Your task to perform on an android device: open app "PlayWell" (install if not already installed) Image 0: 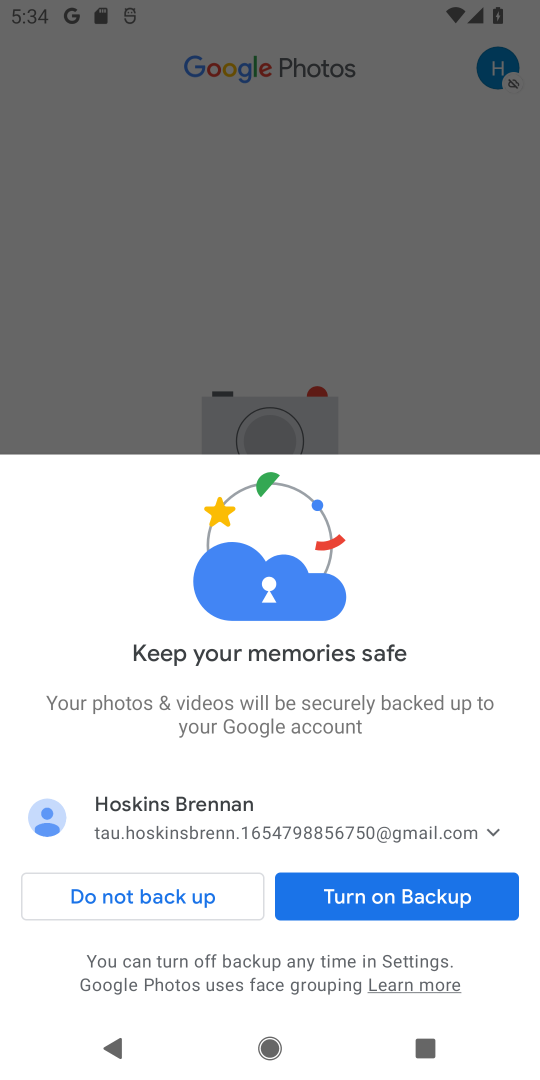
Step 0: press back button
Your task to perform on an android device: open app "PlayWell" (install if not already installed) Image 1: 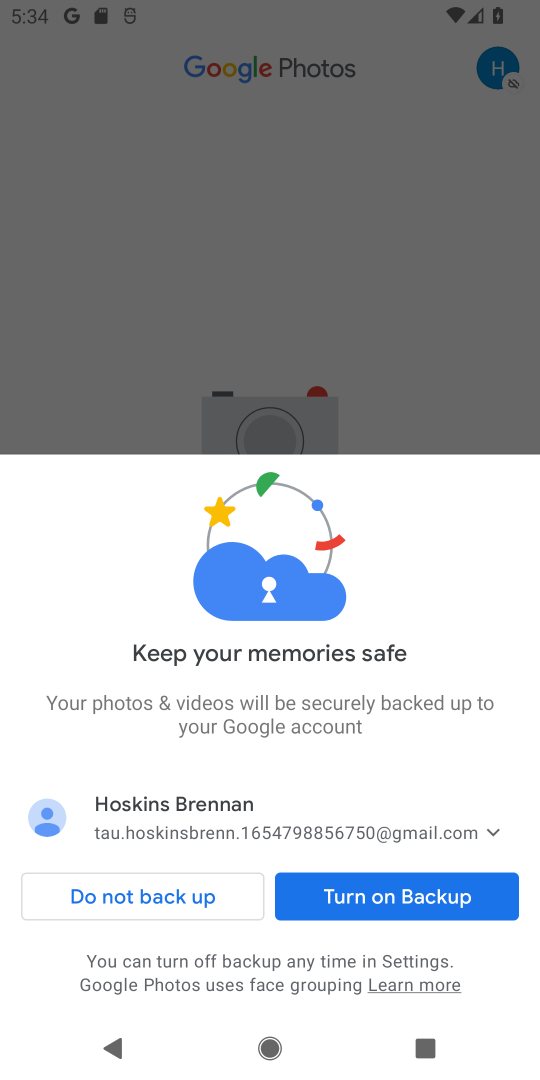
Step 1: press home button
Your task to perform on an android device: open app "PlayWell" (install if not already installed) Image 2: 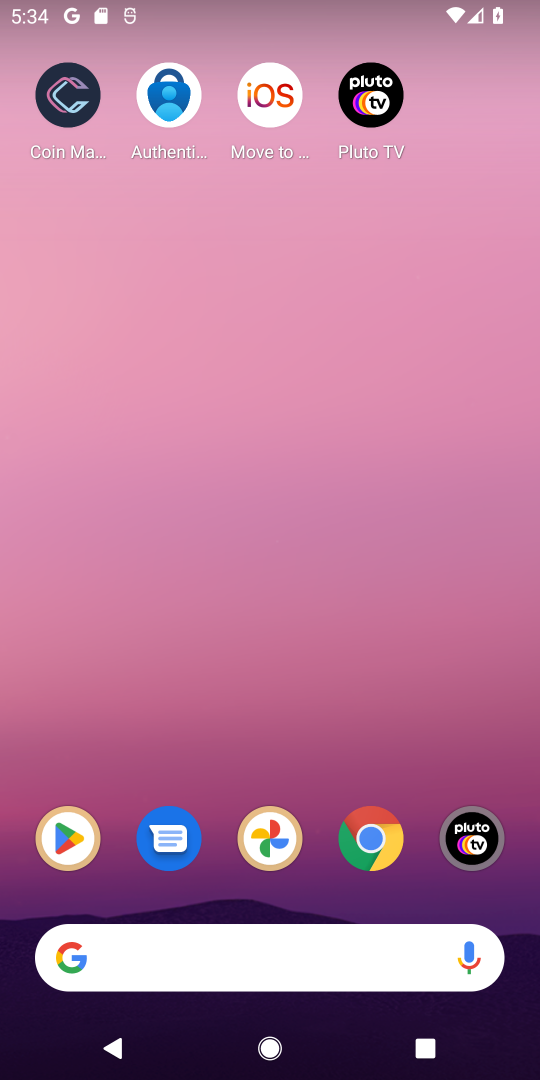
Step 2: click (63, 839)
Your task to perform on an android device: open app "PlayWell" (install if not already installed) Image 3: 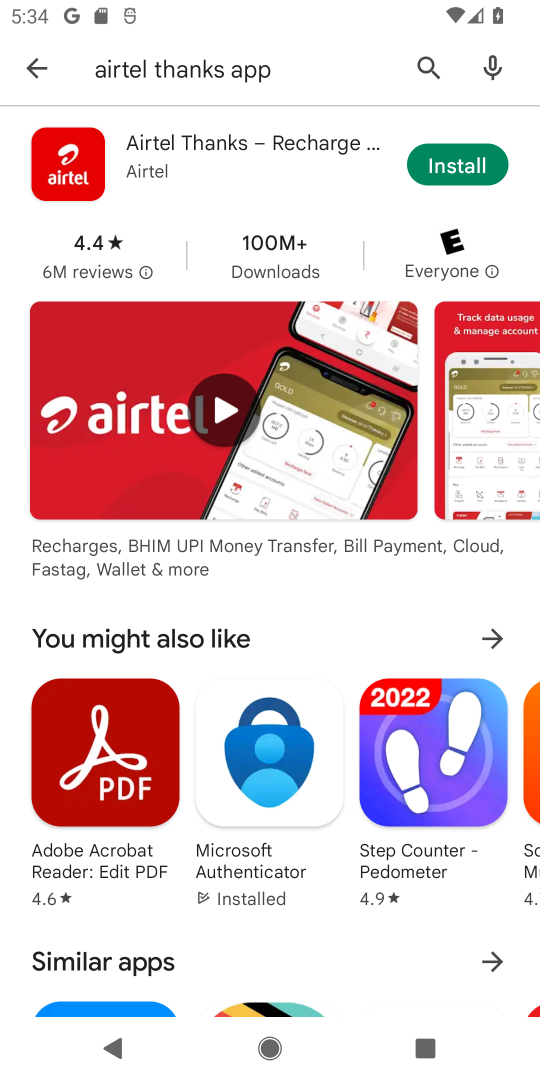
Step 3: click (421, 66)
Your task to perform on an android device: open app "PlayWell" (install if not already installed) Image 4: 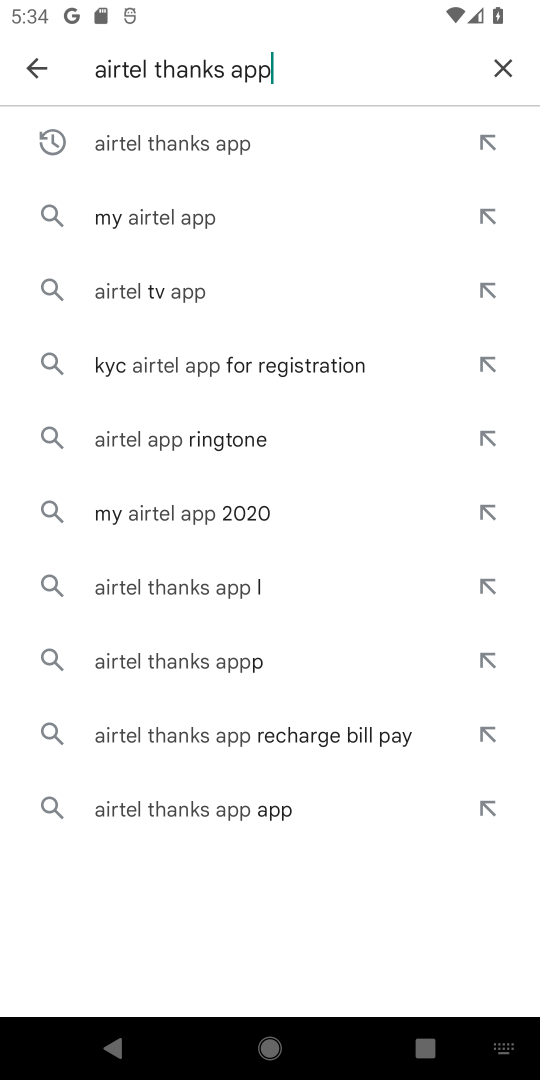
Step 4: click (489, 64)
Your task to perform on an android device: open app "PlayWell" (install if not already installed) Image 5: 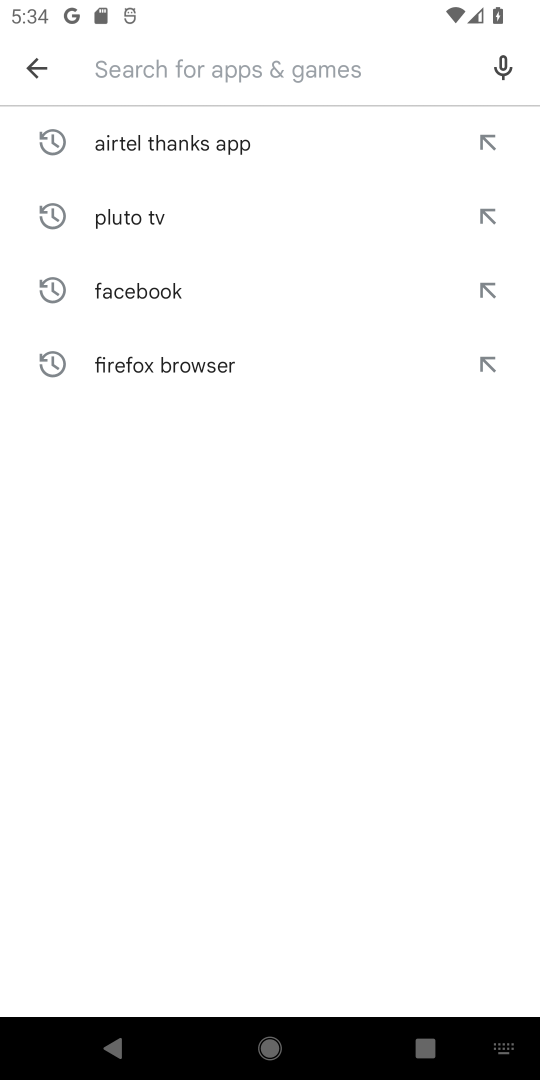
Step 5: click (233, 79)
Your task to perform on an android device: open app "PlayWell" (install if not already installed) Image 6: 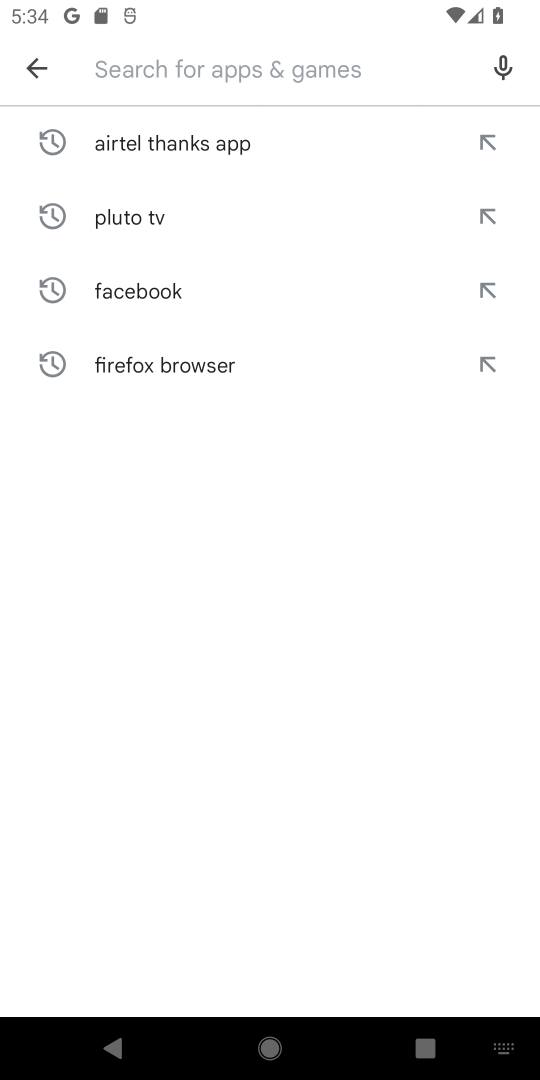
Step 6: type "playwell"
Your task to perform on an android device: open app "PlayWell" (install if not already installed) Image 7: 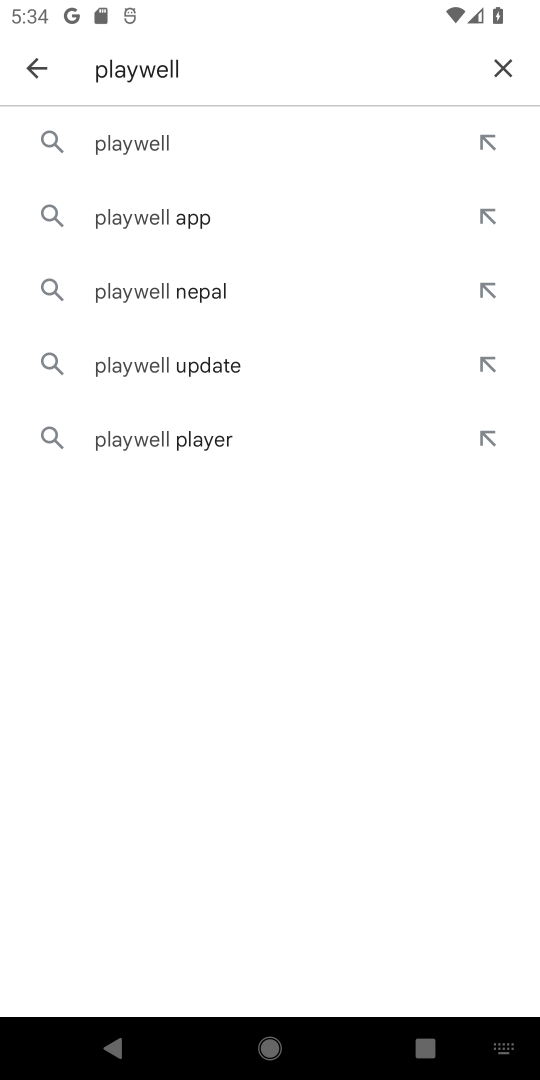
Step 7: click (166, 156)
Your task to perform on an android device: open app "PlayWell" (install if not already installed) Image 8: 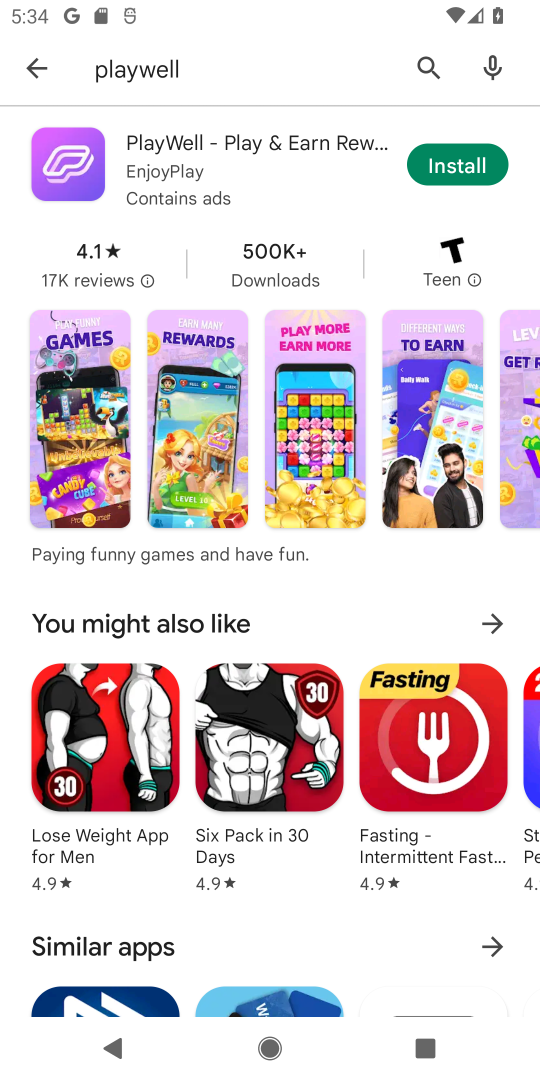
Step 8: click (469, 158)
Your task to perform on an android device: open app "PlayWell" (install if not already installed) Image 9: 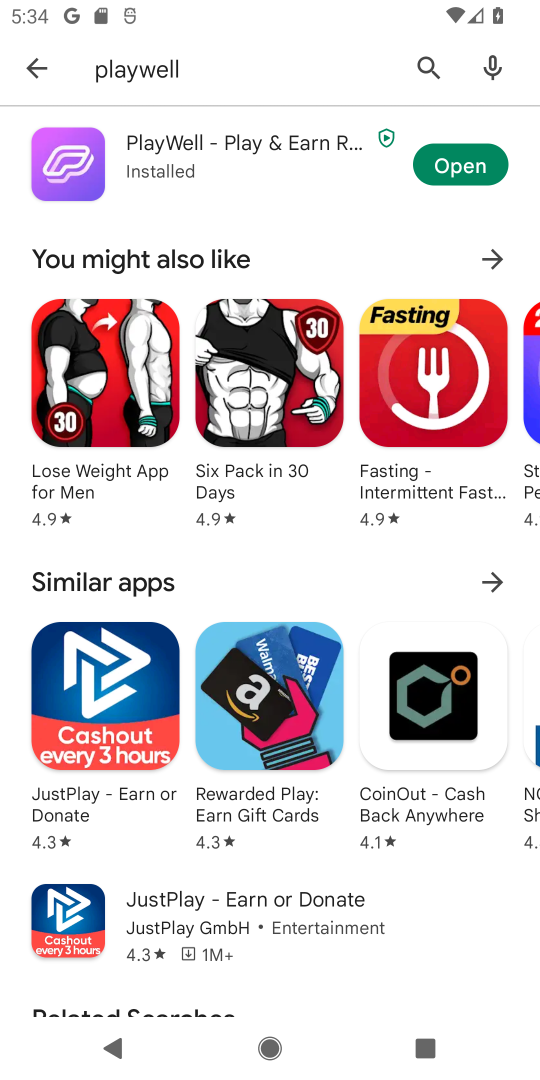
Step 9: click (459, 172)
Your task to perform on an android device: open app "PlayWell" (install if not already installed) Image 10: 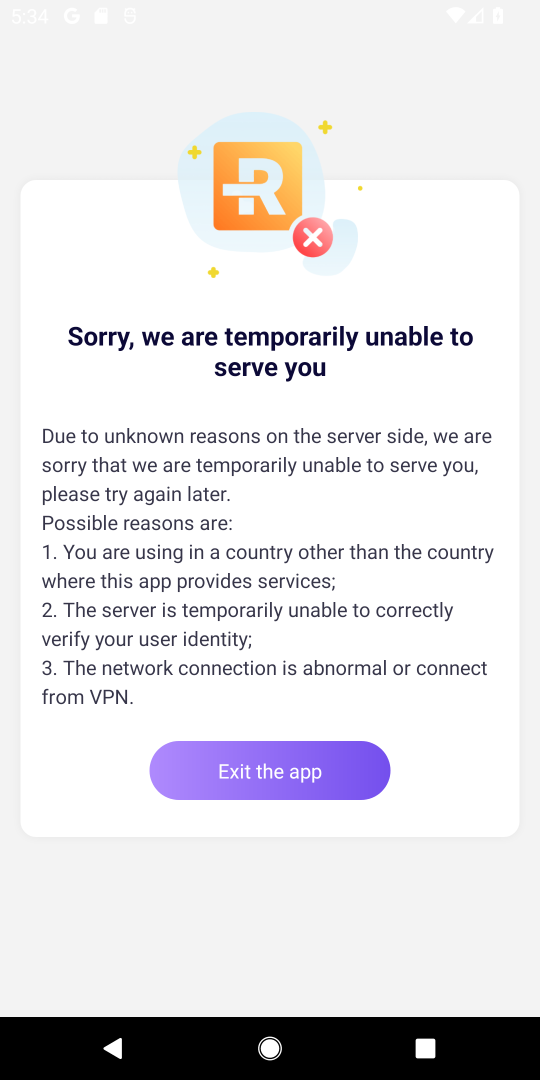
Step 10: task complete